Your task to perform on an android device: Check the weather Image 0: 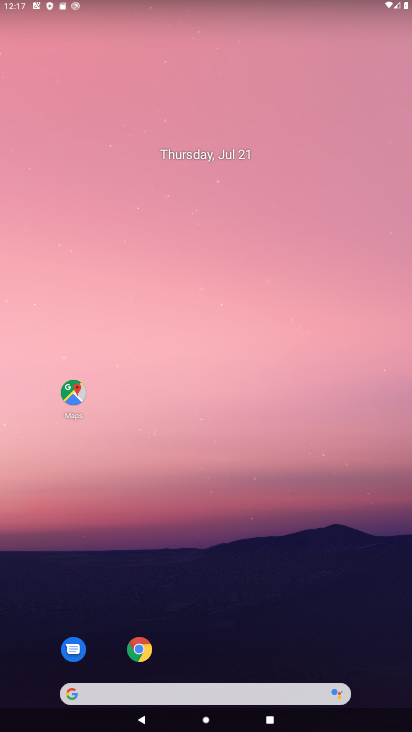
Step 0: drag from (231, 717) to (248, 262)
Your task to perform on an android device: Check the weather Image 1: 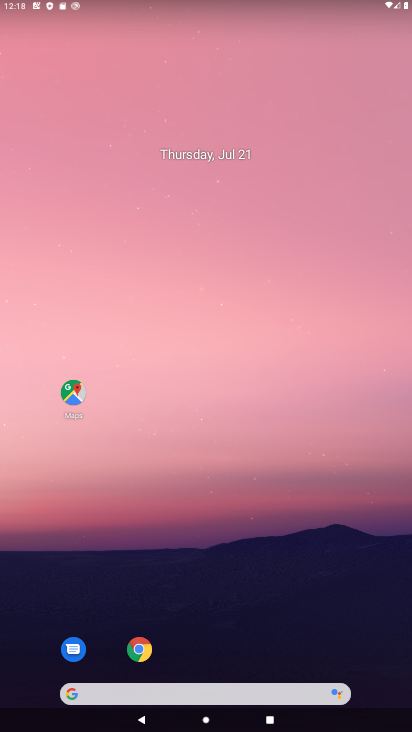
Step 1: drag from (230, 706) to (230, 120)
Your task to perform on an android device: Check the weather Image 2: 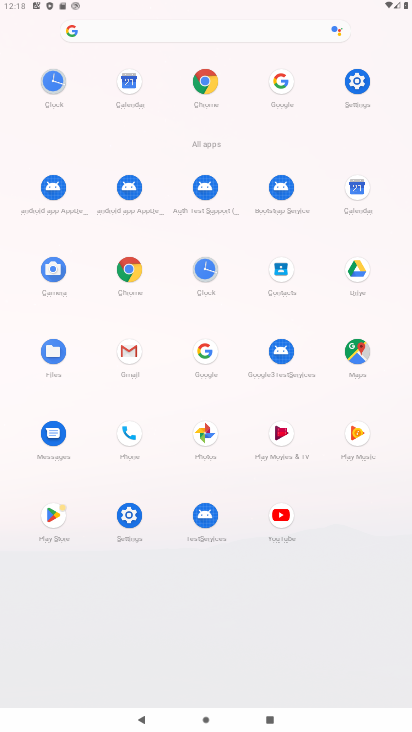
Step 2: click (206, 352)
Your task to perform on an android device: Check the weather Image 3: 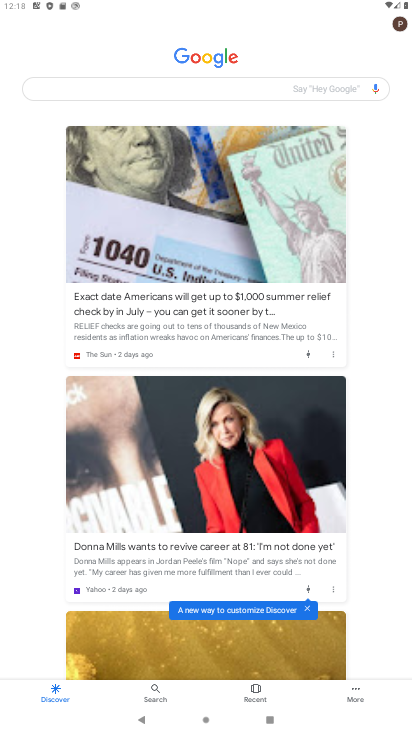
Step 3: click (52, 689)
Your task to perform on an android device: Check the weather Image 4: 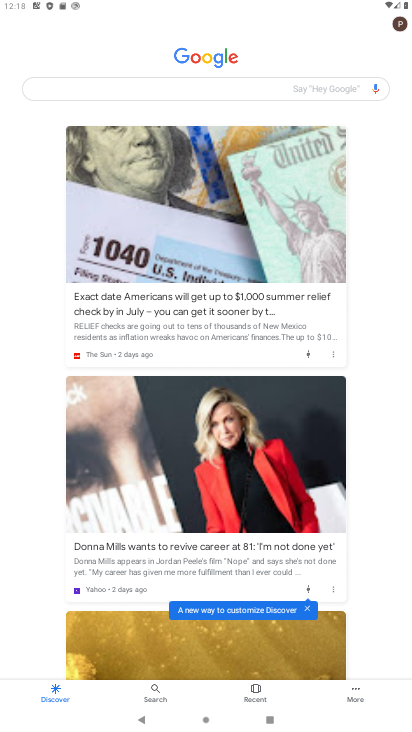
Step 4: click (148, 89)
Your task to perform on an android device: Check the weather Image 5: 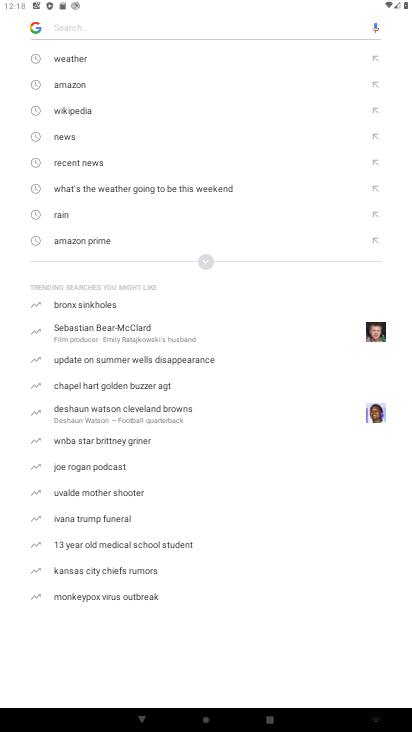
Step 5: click (76, 59)
Your task to perform on an android device: Check the weather Image 6: 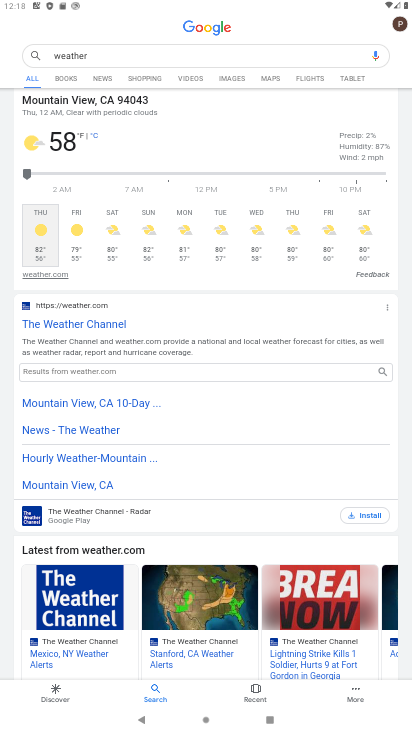
Step 6: task complete